Your task to perform on an android device: toggle javascript in the chrome app Image 0: 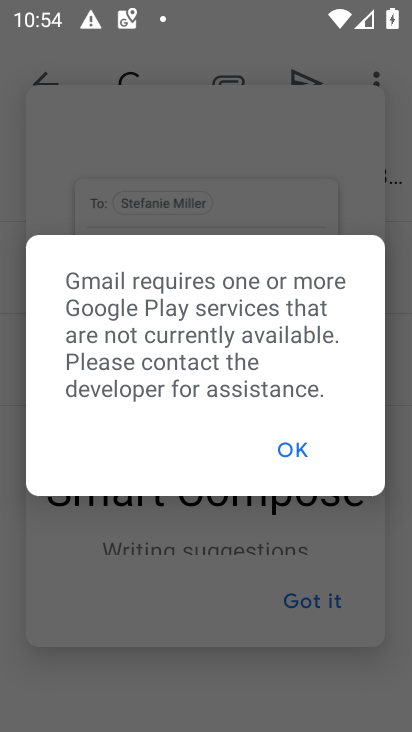
Step 0: press home button
Your task to perform on an android device: toggle javascript in the chrome app Image 1: 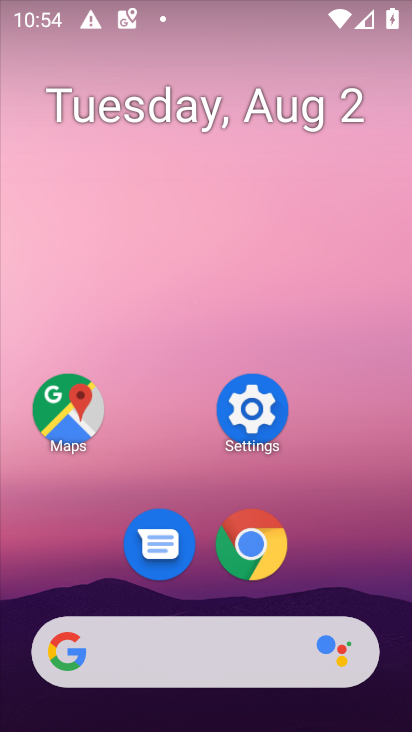
Step 1: click (240, 539)
Your task to perform on an android device: toggle javascript in the chrome app Image 2: 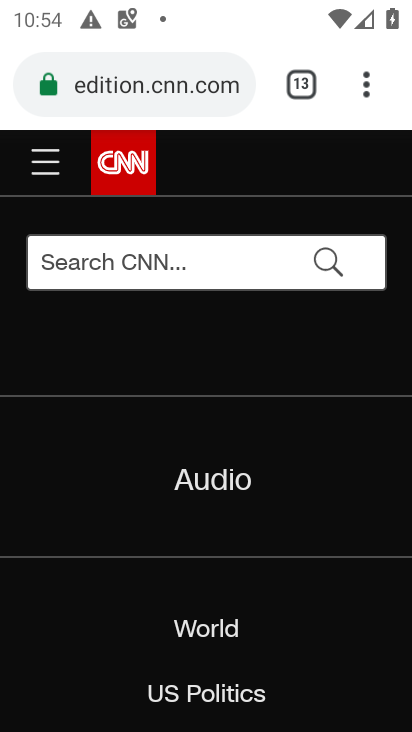
Step 2: drag from (364, 87) to (184, 578)
Your task to perform on an android device: toggle javascript in the chrome app Image 3: 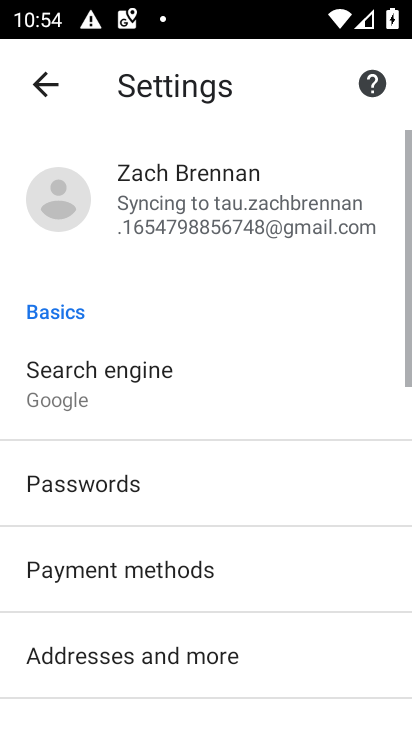
Step 3: drag from (214, 624) to (284, 220)
Your task to perform on an android device: toggle javascript in the chrome app Image 4: 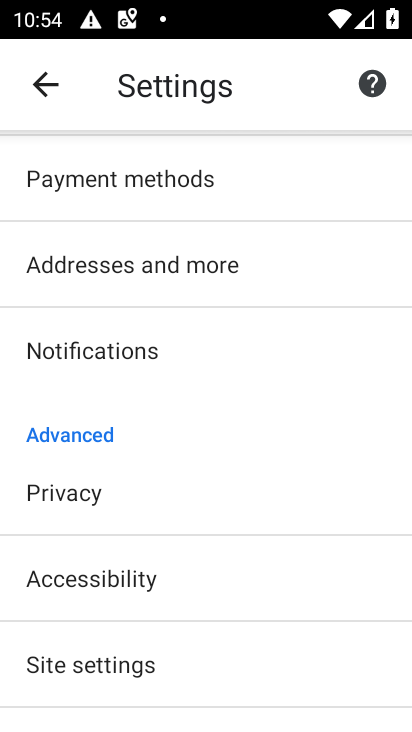
Step 4: click (99, 654)
Your task to perform on an android device: toggle javascript in the chrome app Image 5: 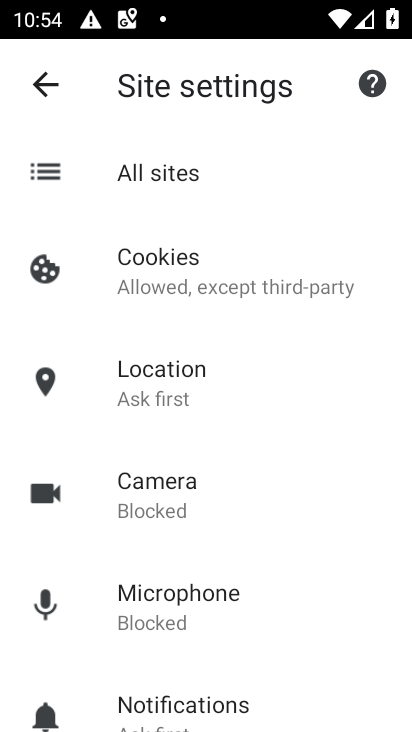
Step 5: drag from (245, 617) to (279, 220)
Your task to perform on an android device: toggle javascript in the chrome app Image 6: 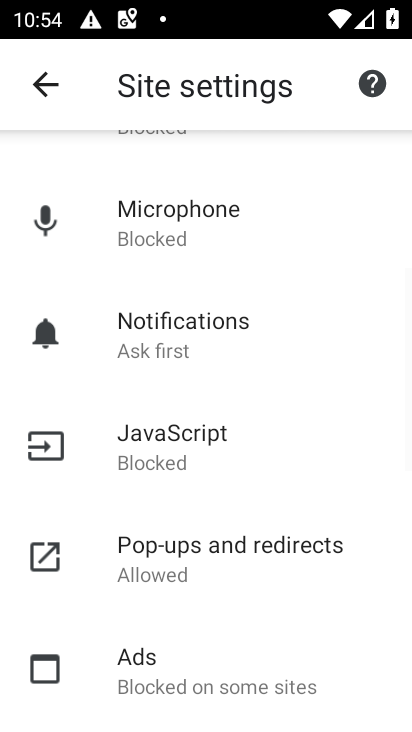
Step 6: click (180, 445)
Your task to perform on an android device: toggle javascript in the chrome app Image 7: 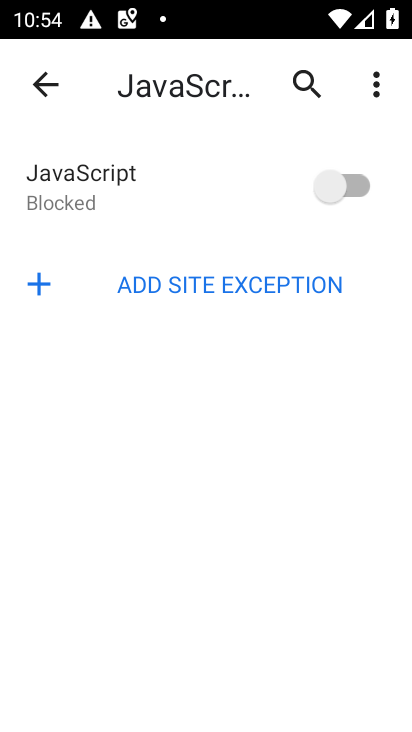
Step 7: click (351, 180)
Your task to perform on an android device: toggle javascript in the chrome app Image 8: 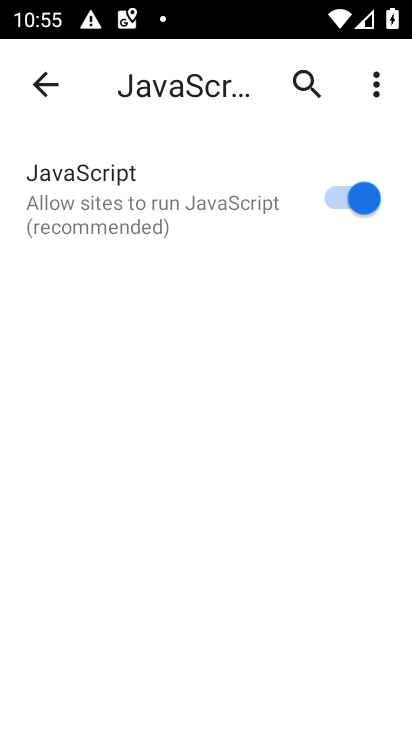
Step 8: task complete